Your task to perform on an android device: turn pop-ups on in chrome Image 0: 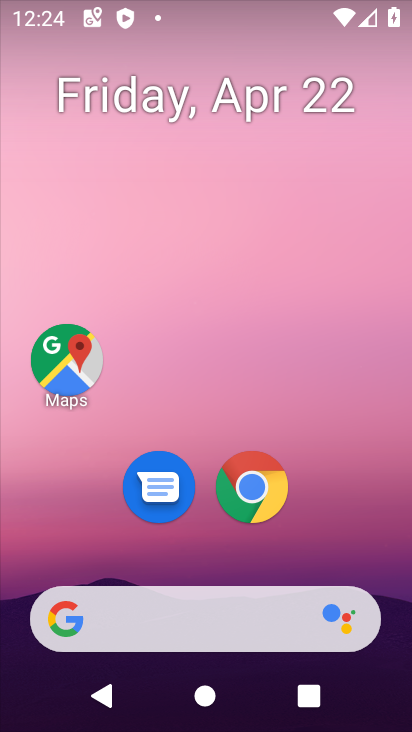
Step 0: click (256, 505)
Your task to perform on an android device: turn pop-ups on in chrome Image 1: 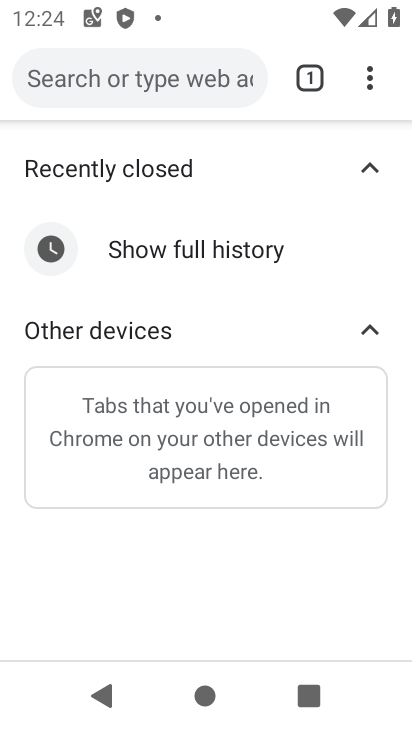
Step 1: drag from (368, 83) to (176, 565)
Your task to perform on an android device: turn pop-ups on in chrome Image 2: 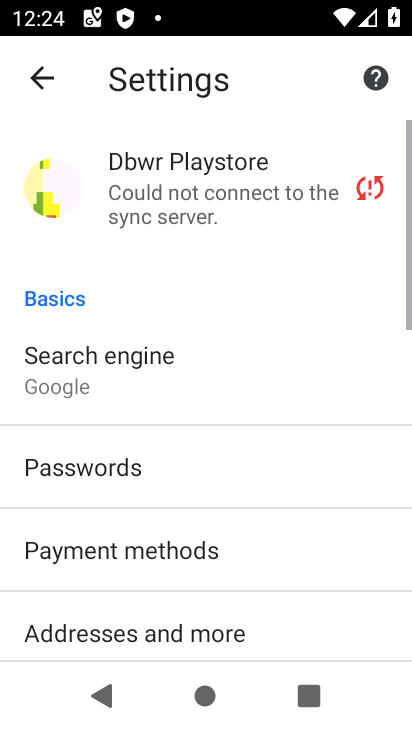
Step 2: drag from (236, 606) to (244, 282)
Your task to perform on an android device: turn pop-ups on in chrome Image 3: 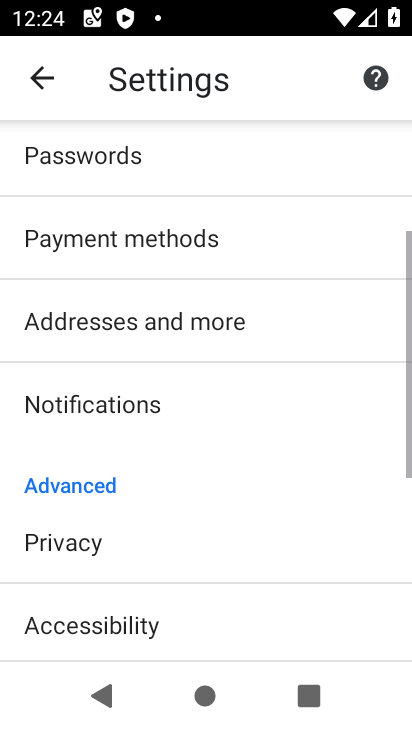
Step 3: drag from (173, 581) to (215, 333)
Your task to perform on an android device: turn pop-ups on in chrome Image 4: 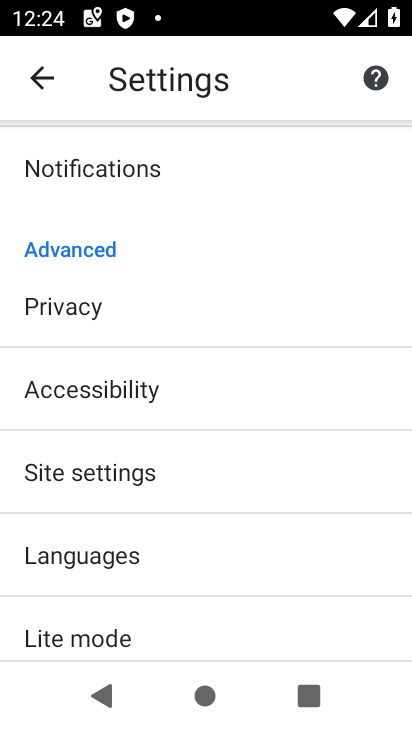
Step 4: click (159, 481)
Your task to perform on an android device: turn pop-ups on in chrome Image 5: 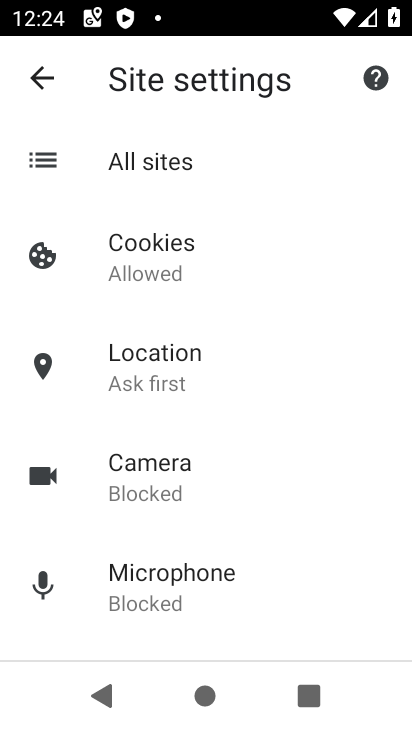
Step 5: drag from (192, 554) to (215, 225)
Your task to perform on an android device: turn pop-ups on in chrome Image 6: 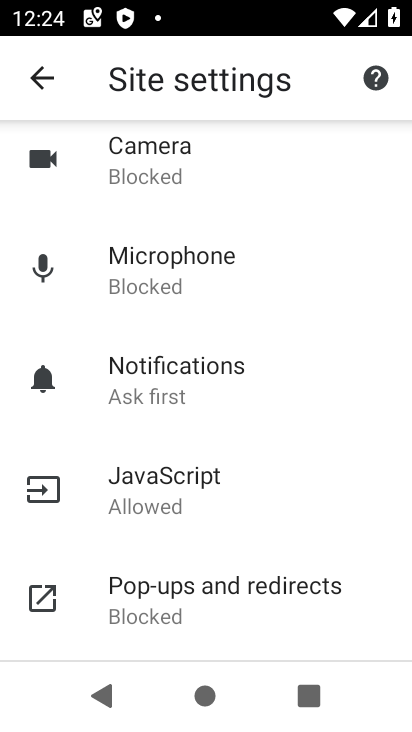
Step 6: click (188, 577)
Your task to perform on an android device: turn pop-ups on in chrome Image 7: 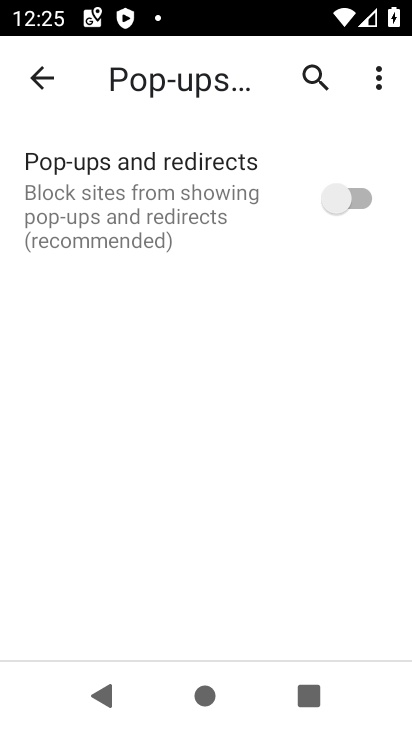
Step 7: click (366, 201)
Your task to perform on an android device: turn pop-ups on in chrome Image 8: 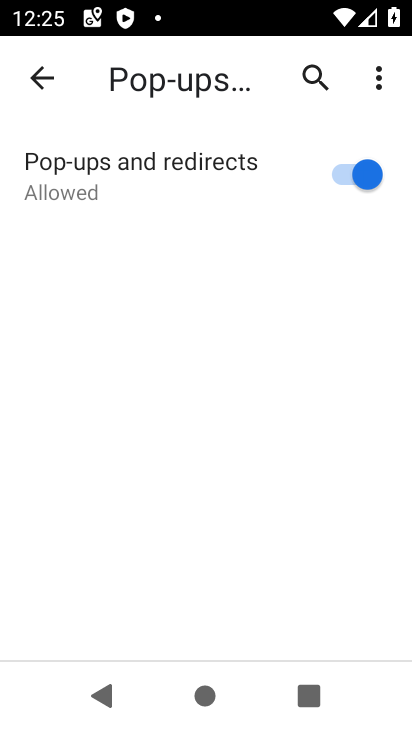
Step 8: task complete